Your task to perform on an android device: What is the speed of a skateboard? Image 0: 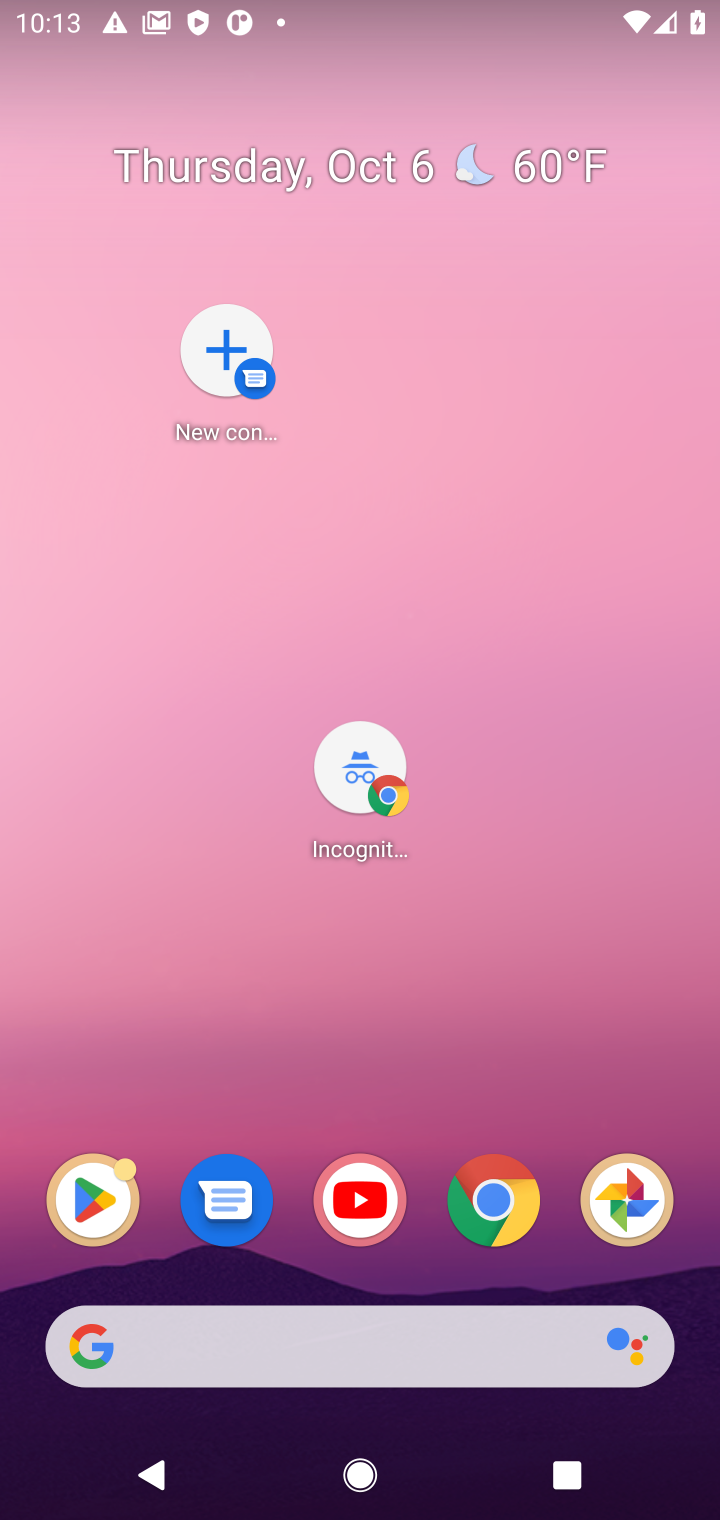
Step 0: drag from (405, 638) to (418, 539)
Your task to perform on an android device: What is the speed of a skateboard? Image 1: 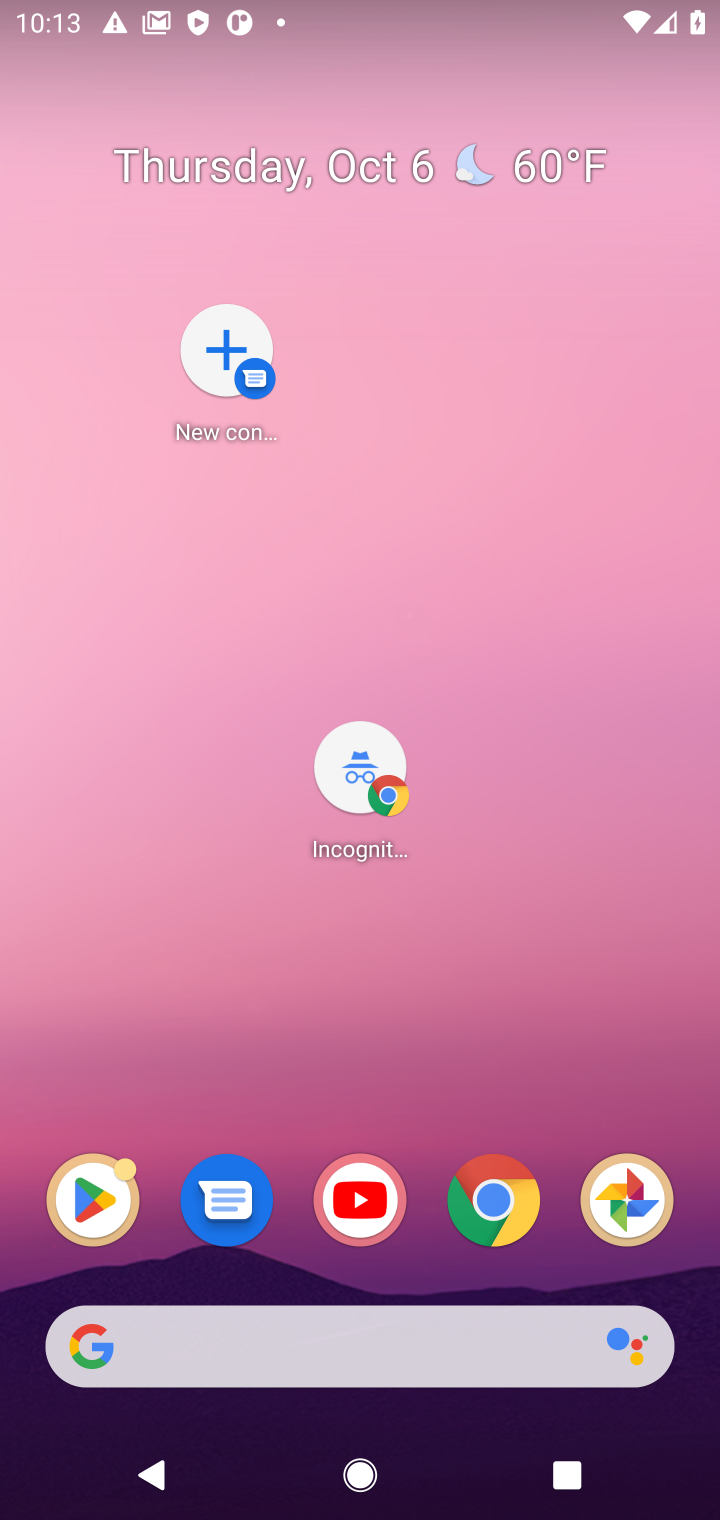
Step 1: drag from (373, 531) to (373, 325)
Your task to perform on an android device: What is the speed of a skateboard? Image 2: 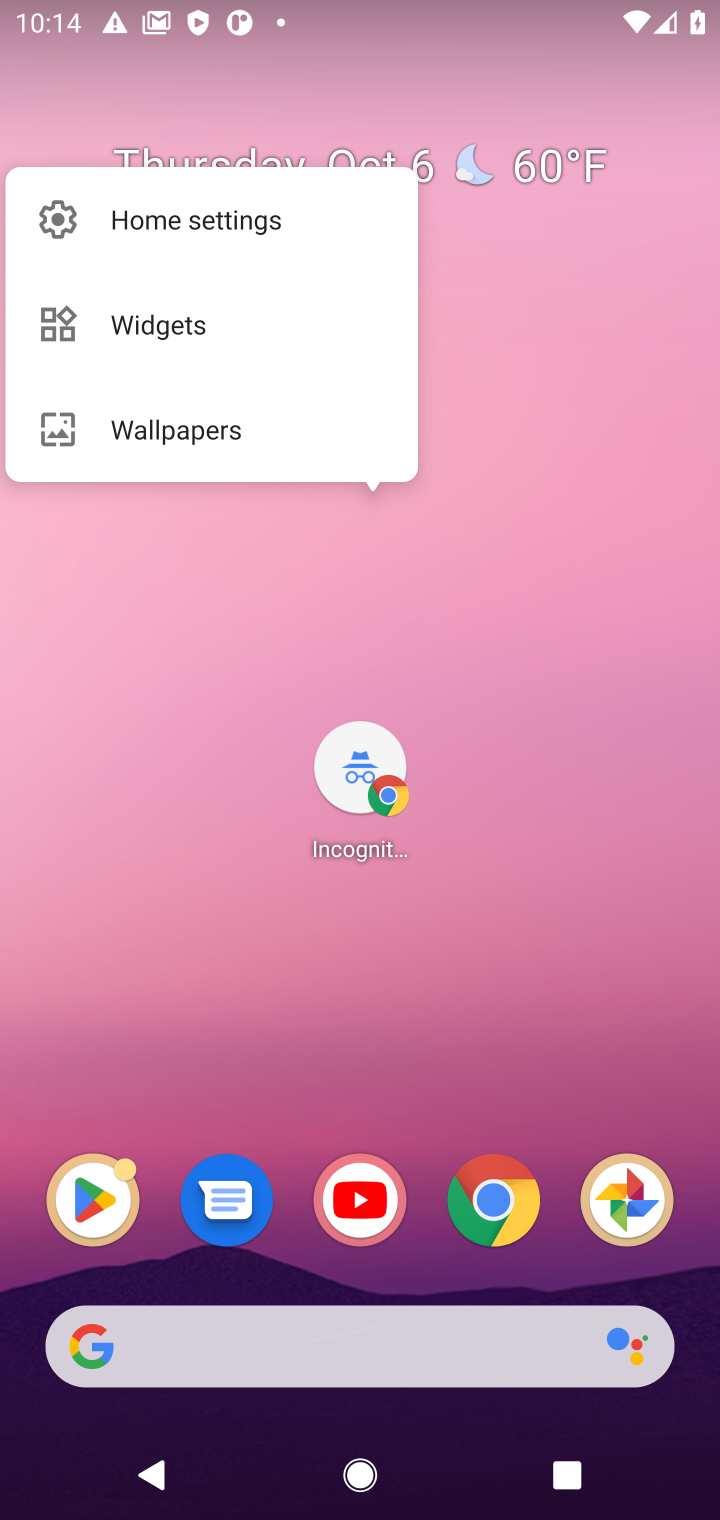
Step 2: click (273, 656)
Your task to perform on an android device: What is the speed of a skateboard? Image 3: 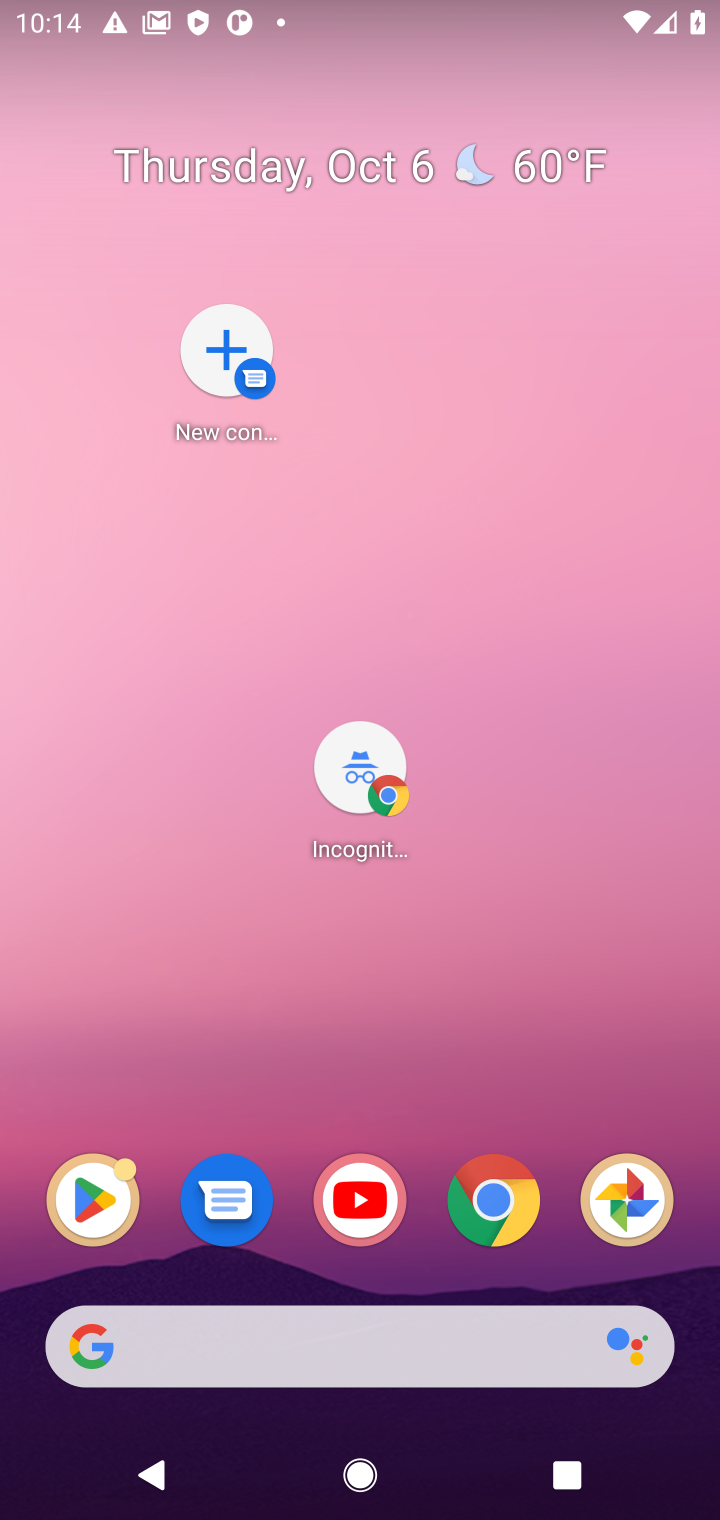
Step 3: drag from (665, 161) to (620, 28)
Your task to perform on an android device: What is the speed of a skateboard? Image 4: 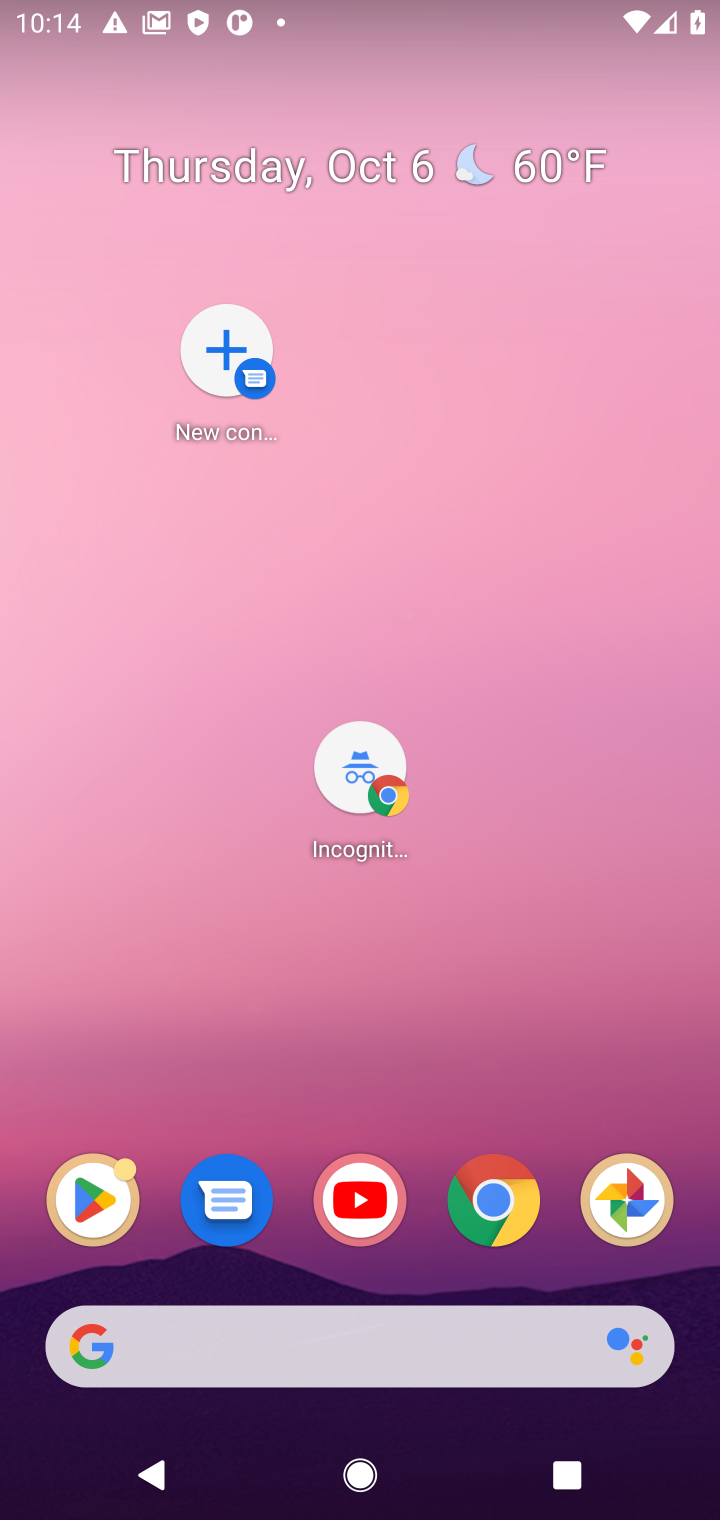
Step 4: drag from (367, 1242) to (479, 151)
Your task to perform on an android device: What is the speed of a skateboard? Image 5: 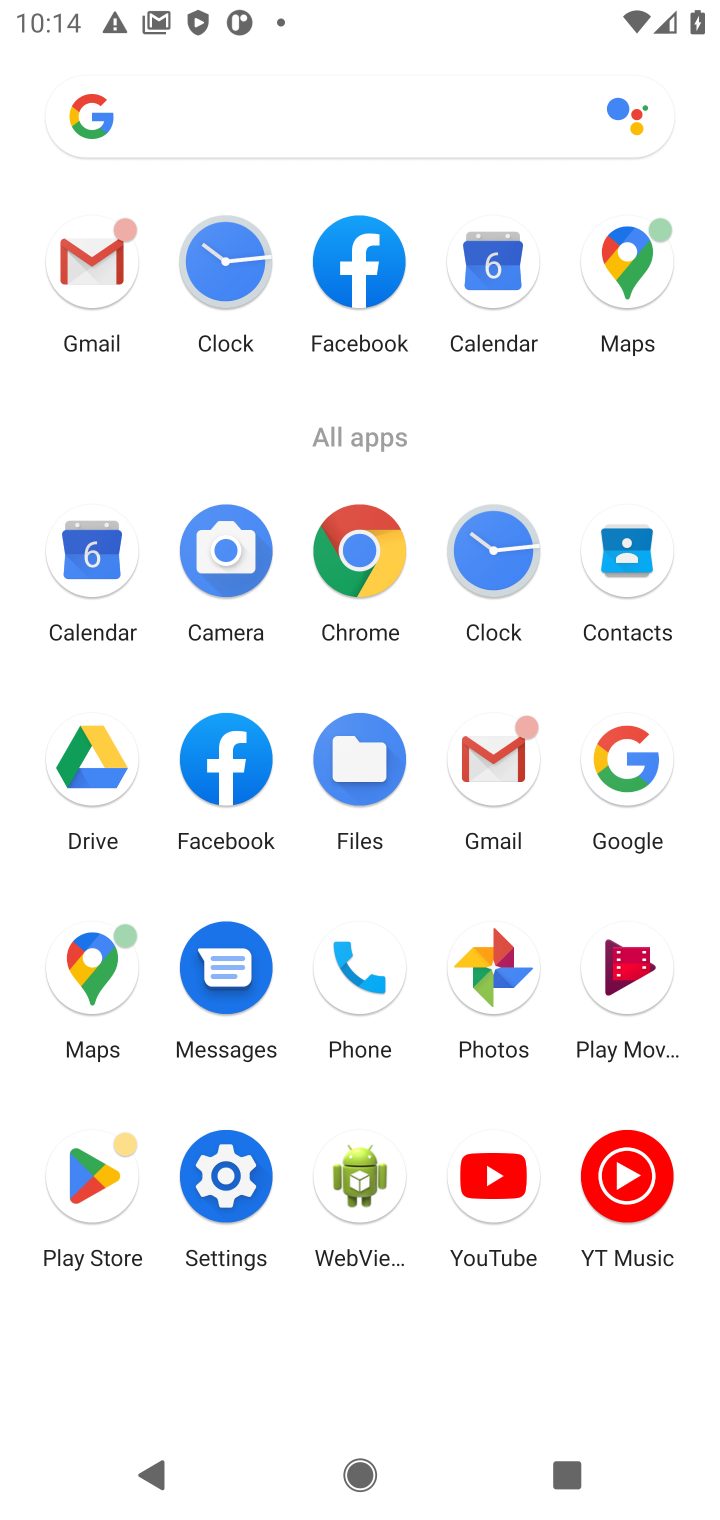
Step 5: click (603, 767)
Your task to perform on an android device: What is the speed of a skateboard? Image 6: 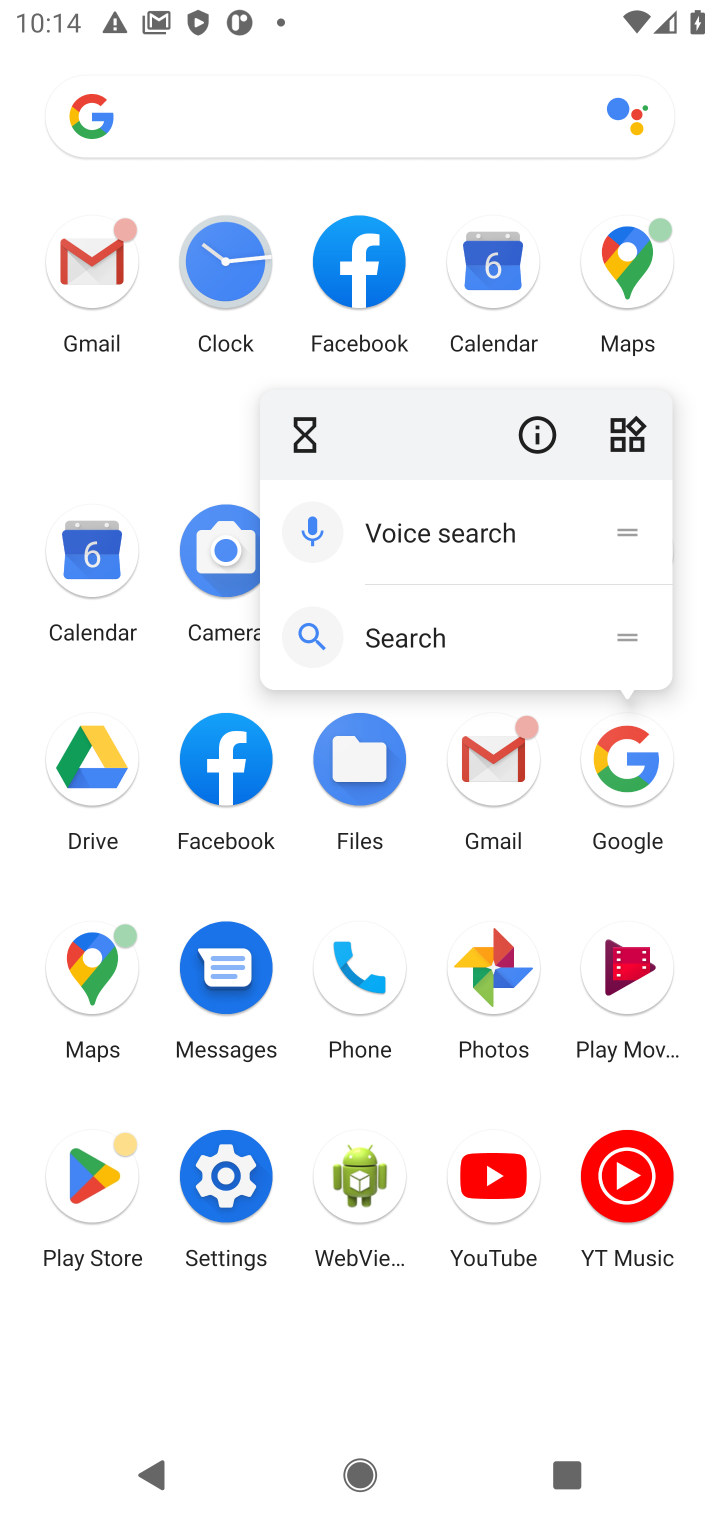
Step 6: click (605, 758)
Your task to perform on an android device: What is the speed of a skateboard? Image 7: 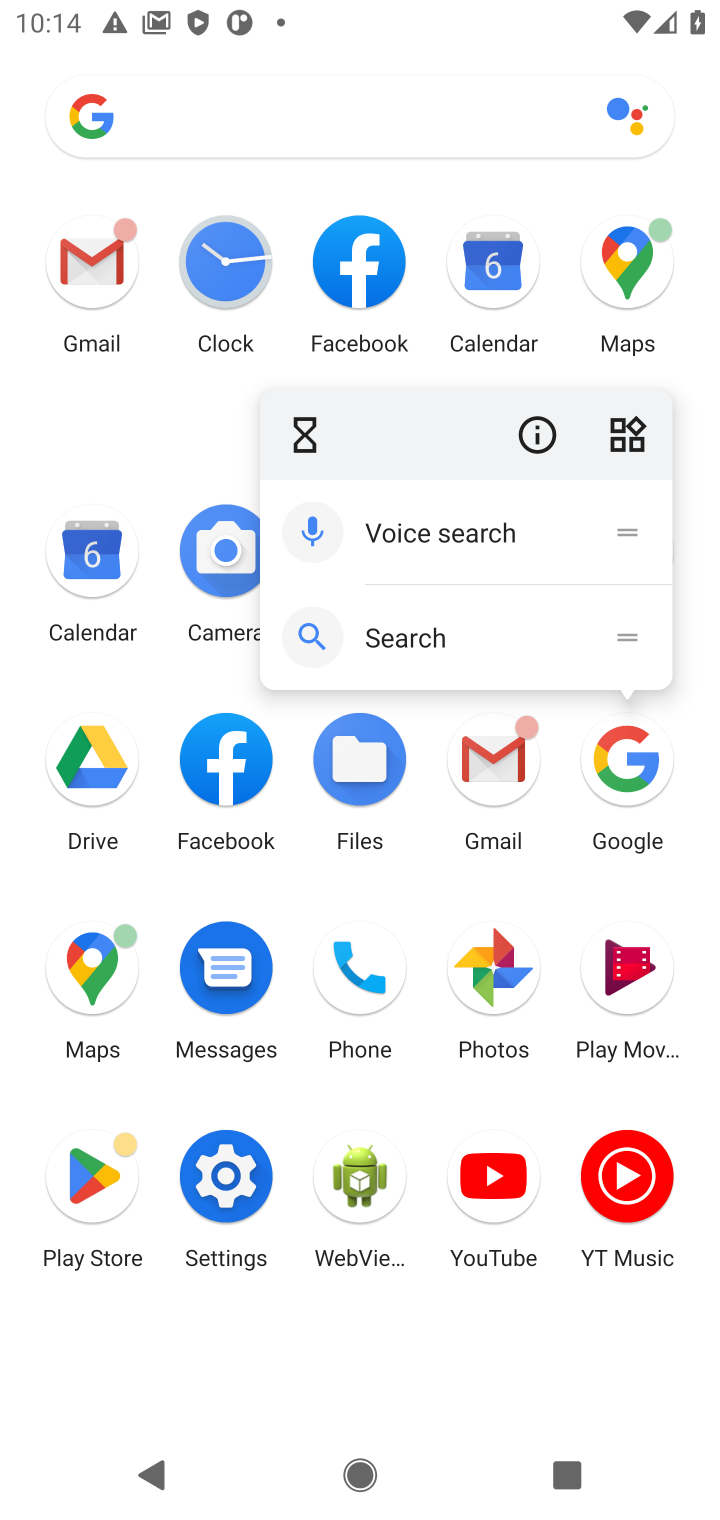
Step 7: click (612, 773)
Your task to perform on an android device: What is the speed of a skateboard? Image 8: 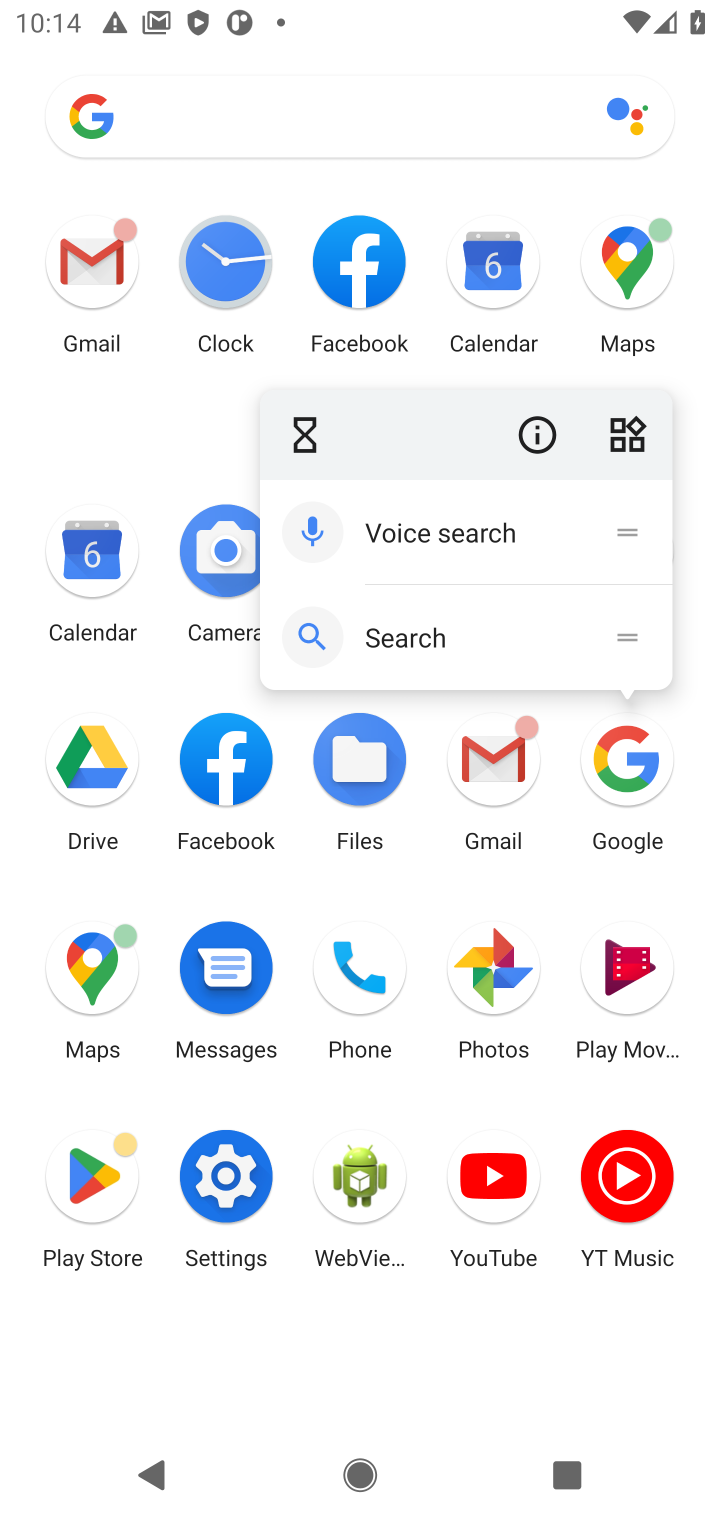
Step 8: click (674, 761)
Your task to perform on an android device: What is the speed of a skateboard? Image 9: 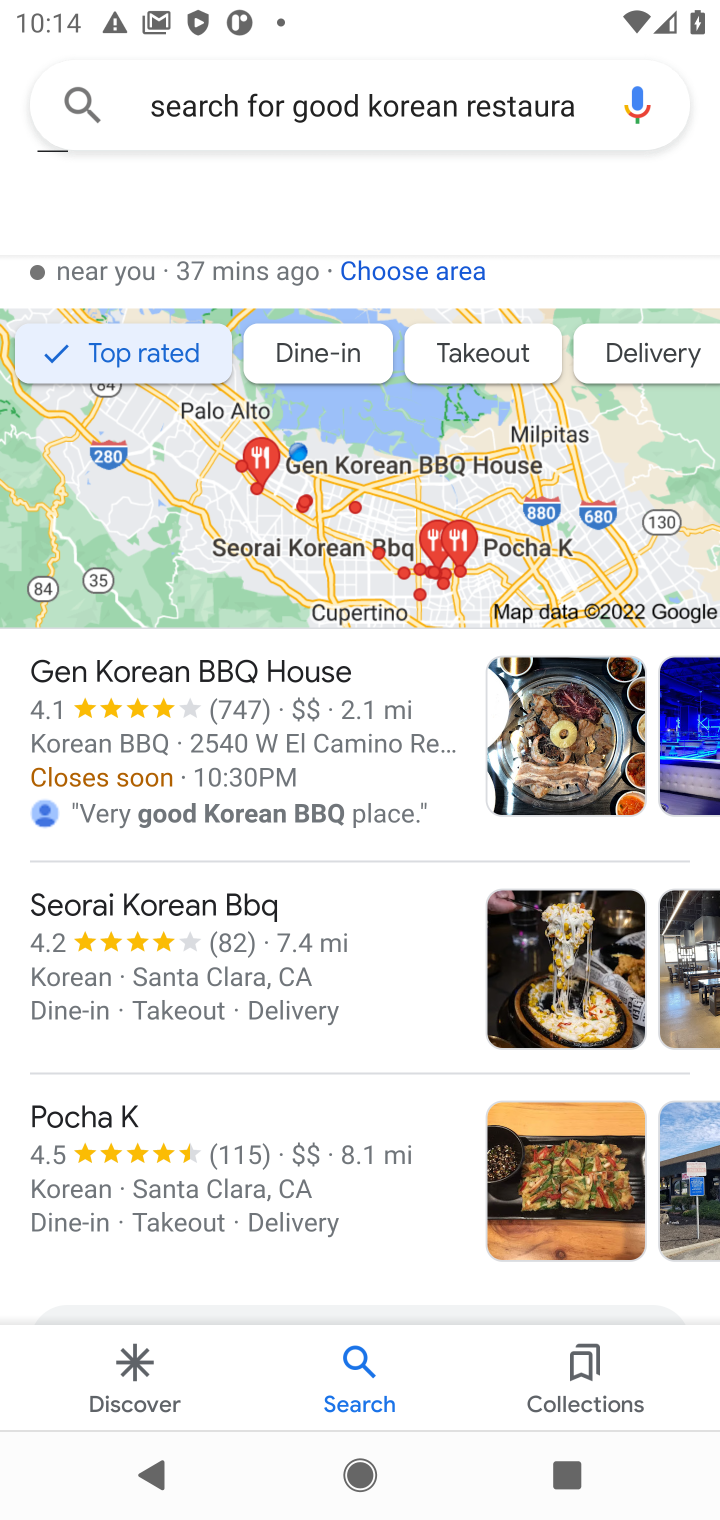
Step 9: click (631, 772)
Your task to perform on an android device: What is the speed of a skateboard? Image 10: 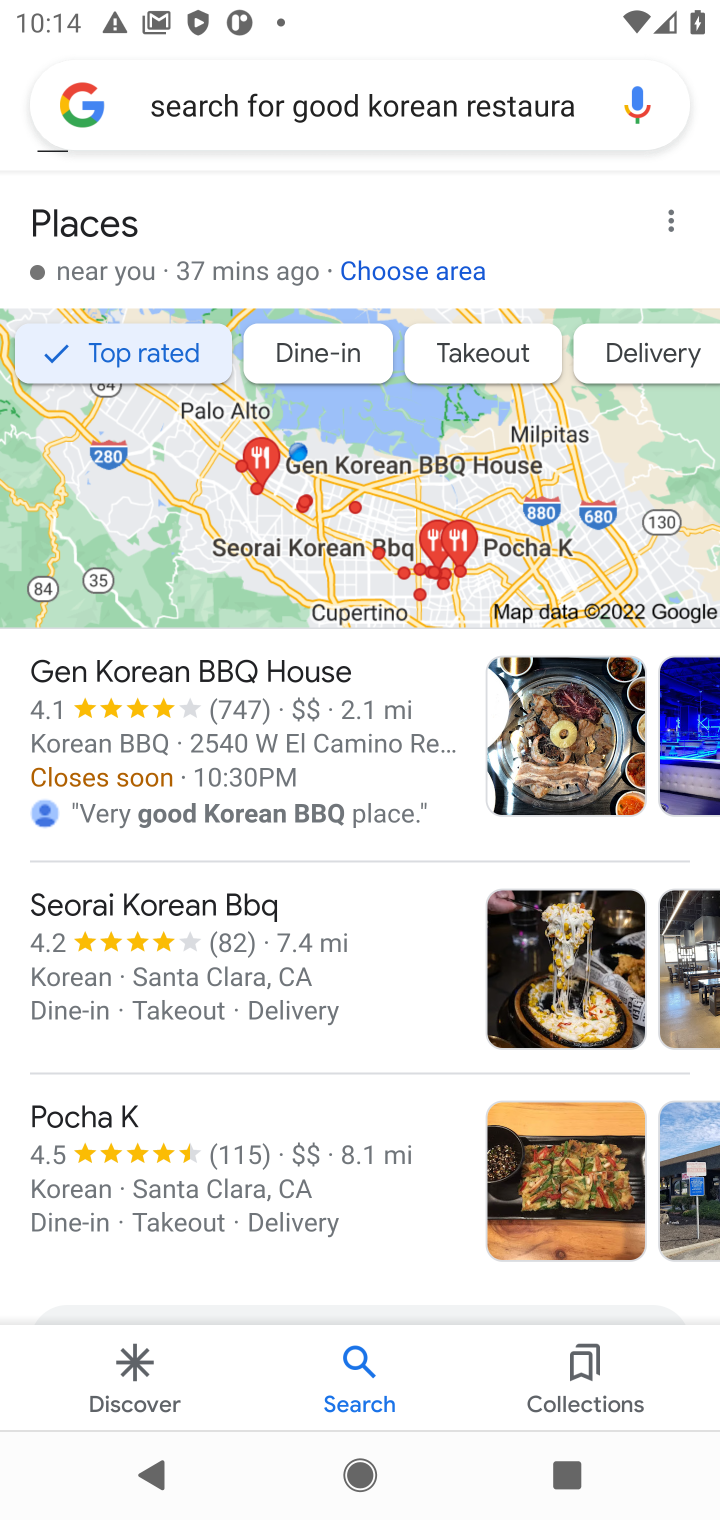
Step 10: click (416, 105)
Your task to perform on an android device: What is the speed of a skateboard? Image 11: 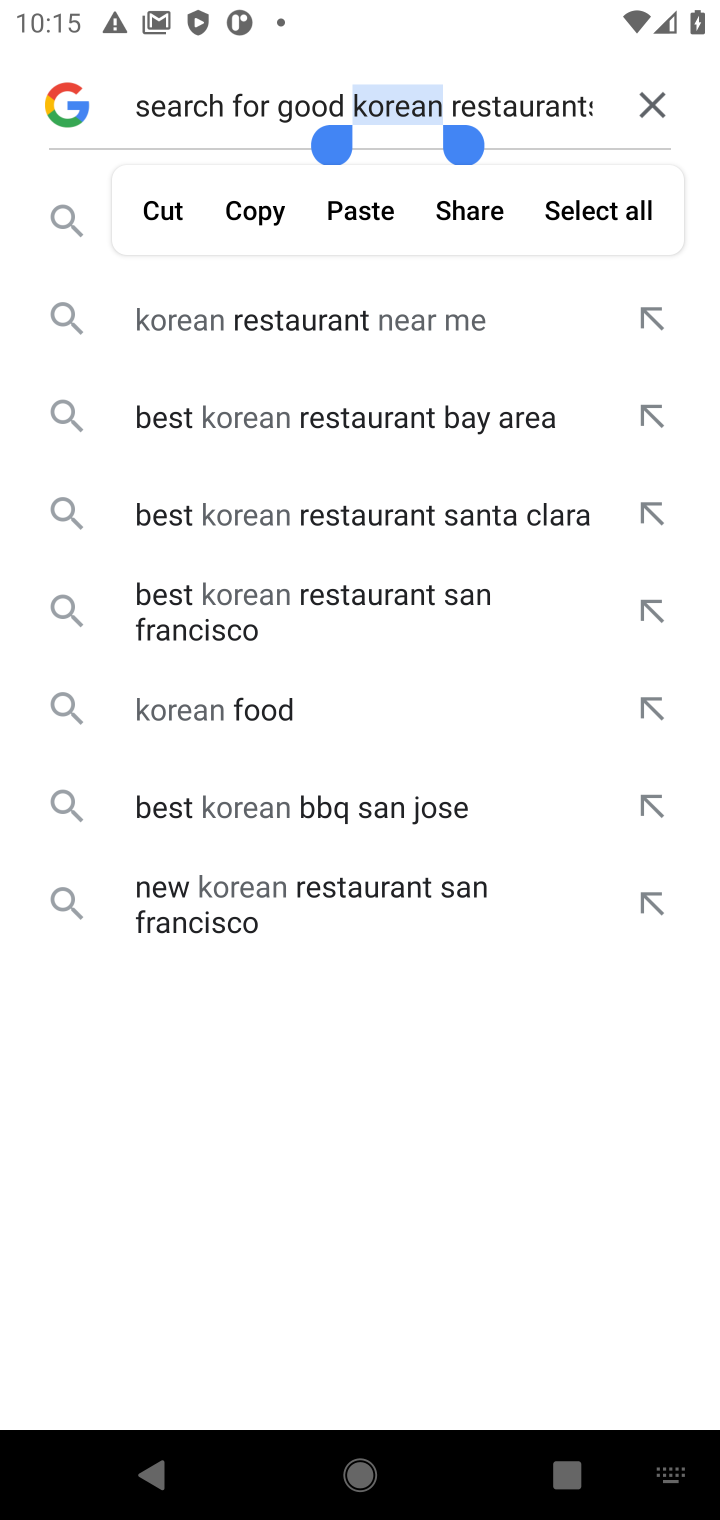
Step 11: click (660, 106)
Your task to perform on an android device: What is the speed of a skateboard? Image 12: 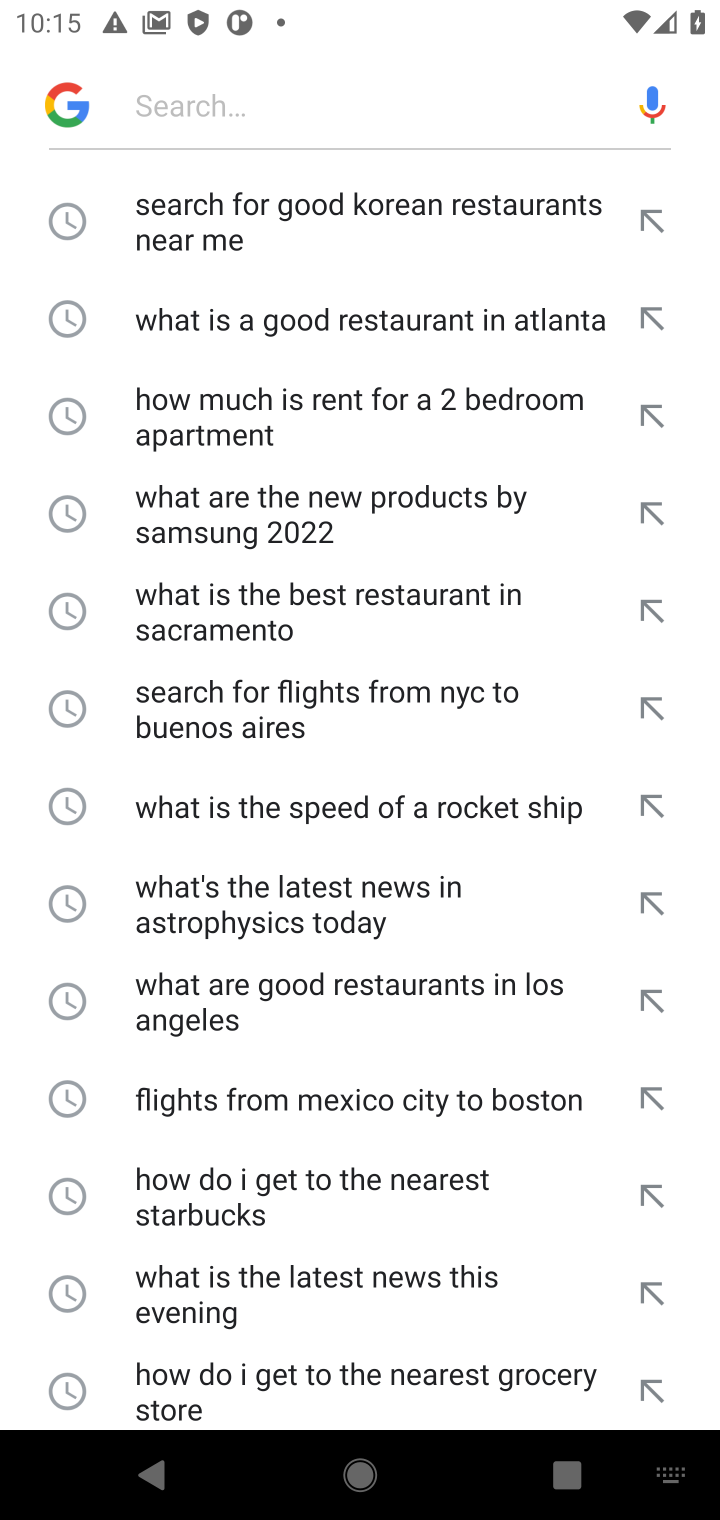
Step 12: type "What is the speed of a skateboard?"
Your task to perform on an android device: What is the speed of a skateboard? Image 13: 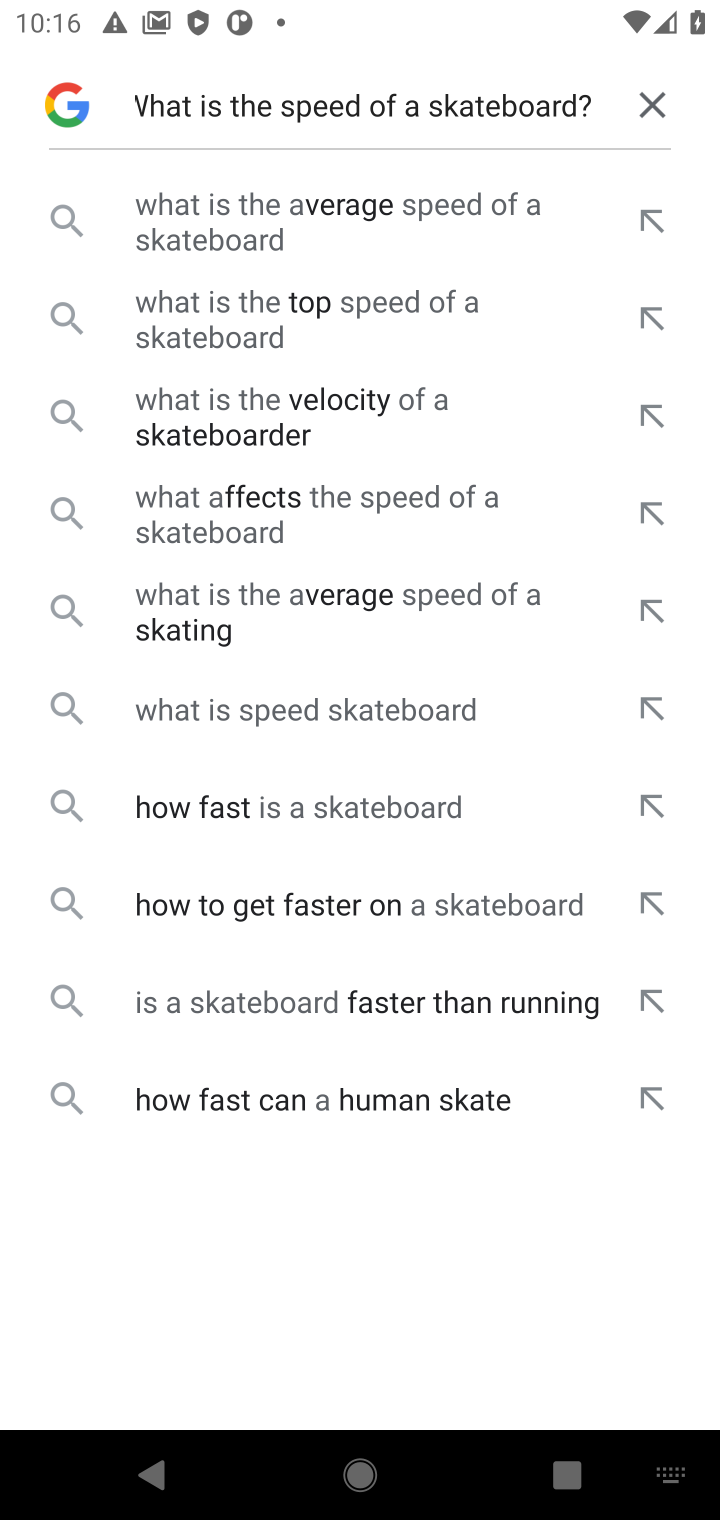
Step 13: click (371, 219)
Your task to perform on an android device: What is the speed of a skateboard? Image 14: 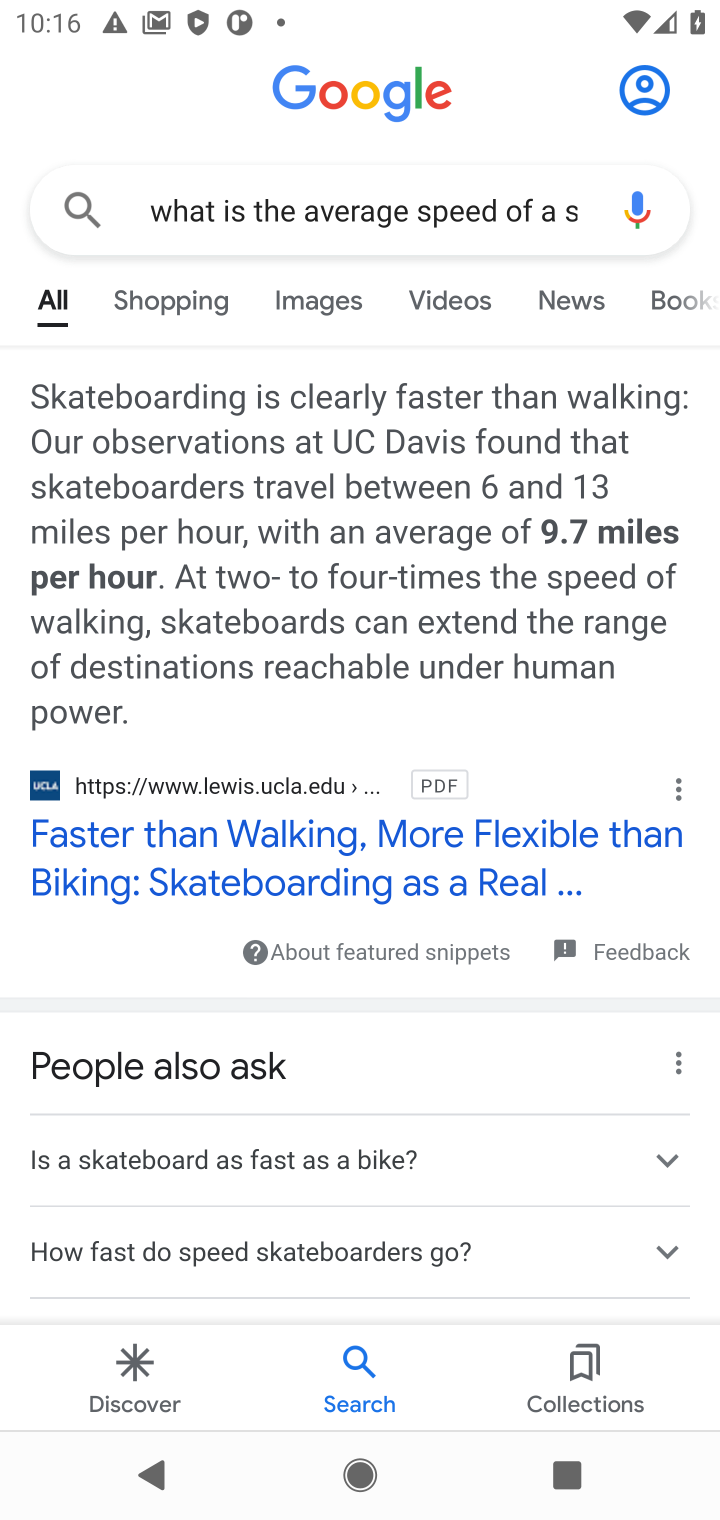
Step 14: task complete